Your task to perform on an android device: Open ESPN.com Image 0: 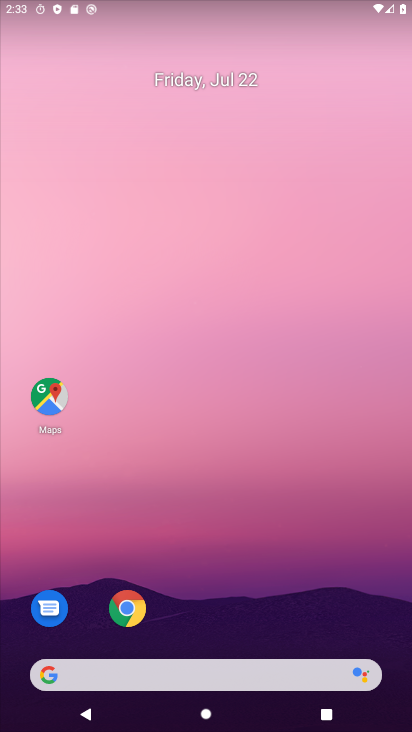
Step 0: click (130, 617)
Your task to perform on an android device: Open ESPN.com Image 1: 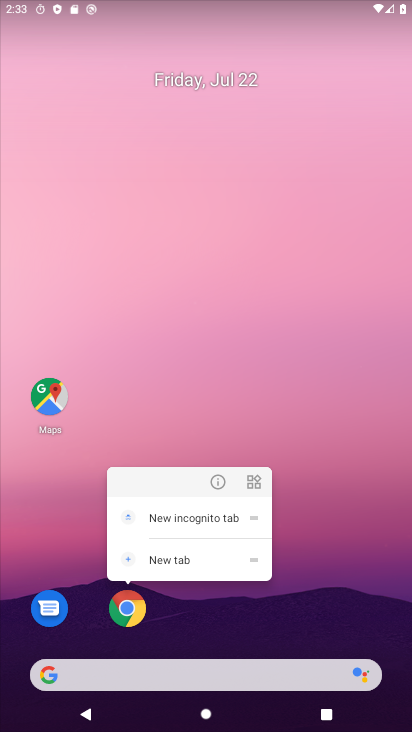
Step 1: click (130, 617)
Your task to perform on an android device: Open ESPN.com Image 2: 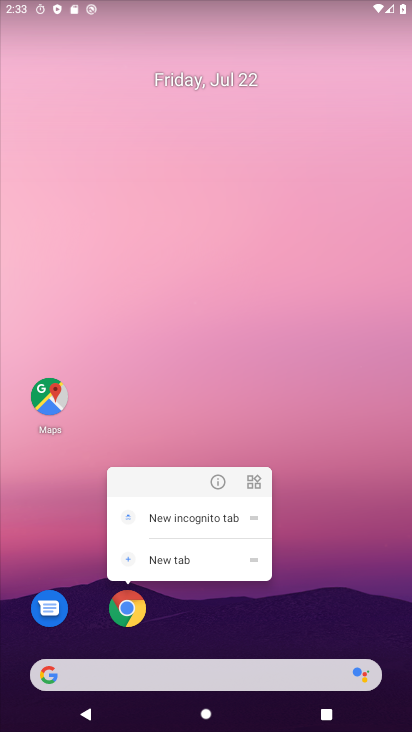
Step 2: click (130, 617)
Your task to perform on an android device: Open ESPN.com Image 3: 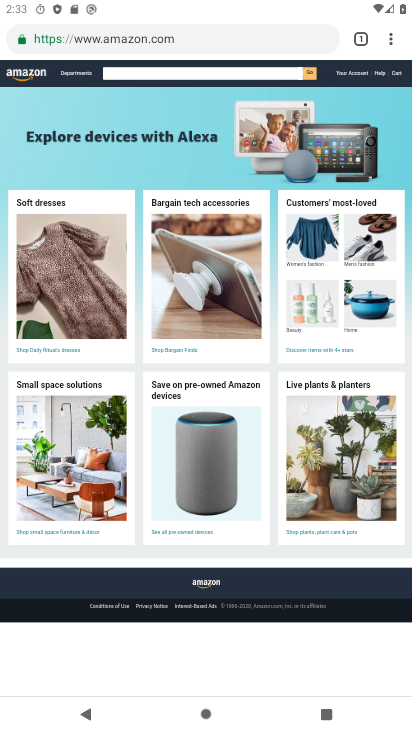
Step 3: click (355, 39)
Your task to perform on an android device: Open ESPN.com Image 4: 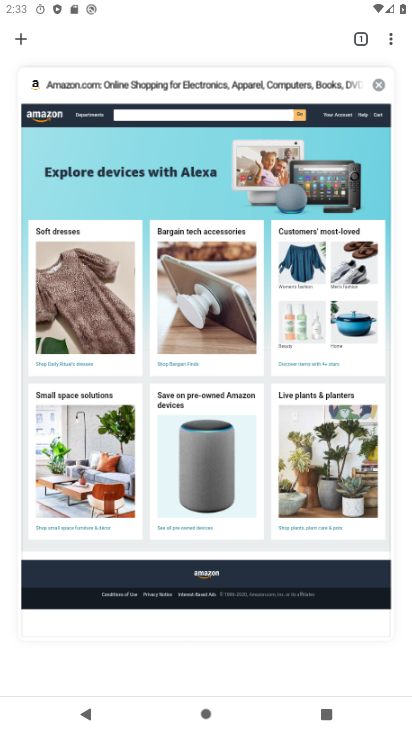
Step 4: click (21, 41)
Your task to perform on an android device: Open ESPN.com Image 5: 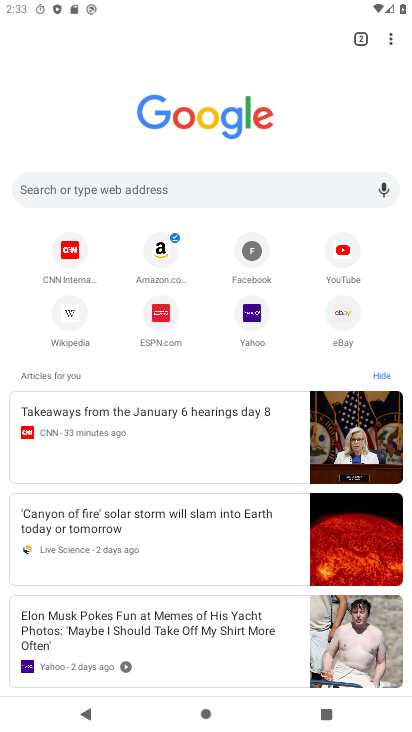
Step 5: click (159, 314)
Your task to perform on an android device: Open ESPN.com Image 6: 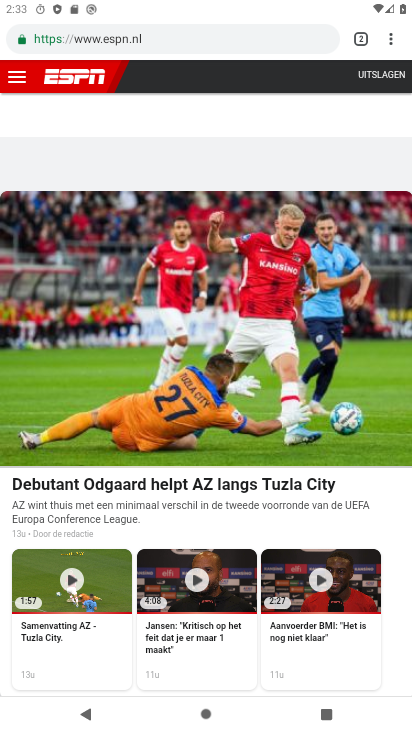
Step 6: task complete